Your task to perform on an android device: Open Chrome and go to settings Image 0: 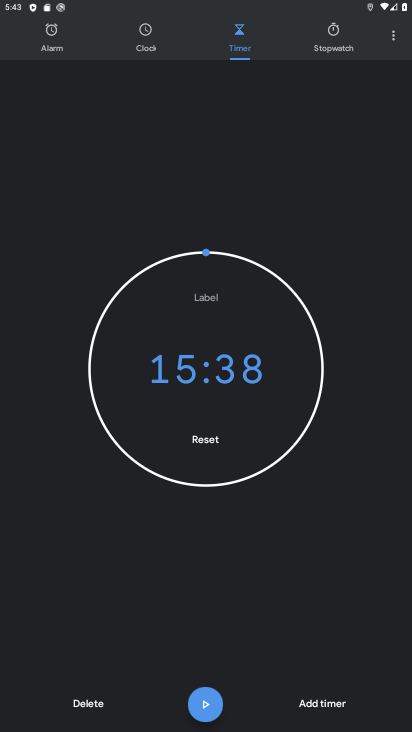
Step 0: press home button
Your task to perform on an android device: Open Chrome and go to settings Image 1: 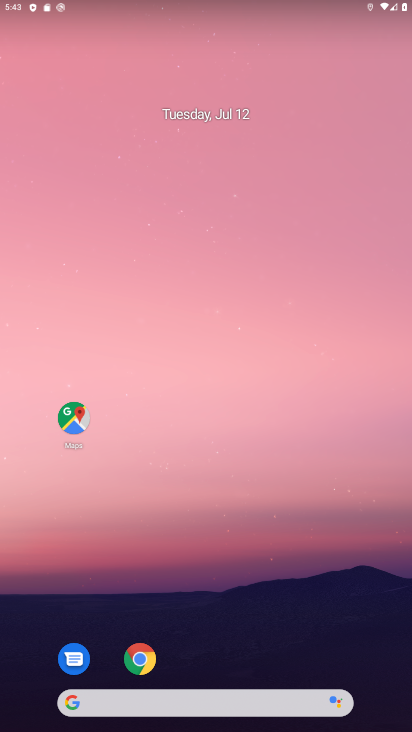
Step 1: click (135, 655)
Your task to perform on an android device: Open Chrome and go to settings Image 2: 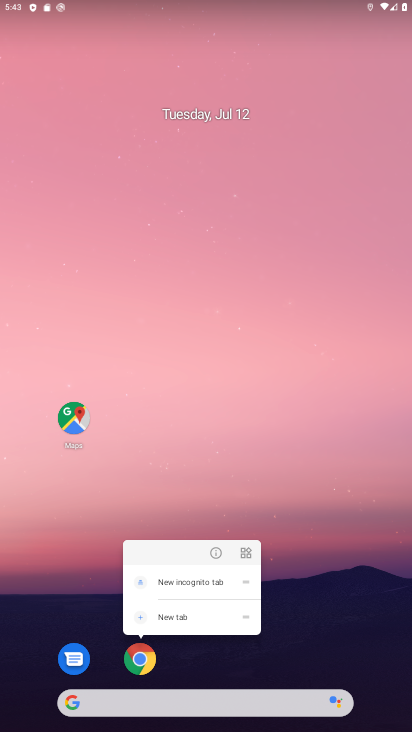
Step 2: click (147, 657)
Your task to perform on an android device: Open Chrome and go to settings Image 3: 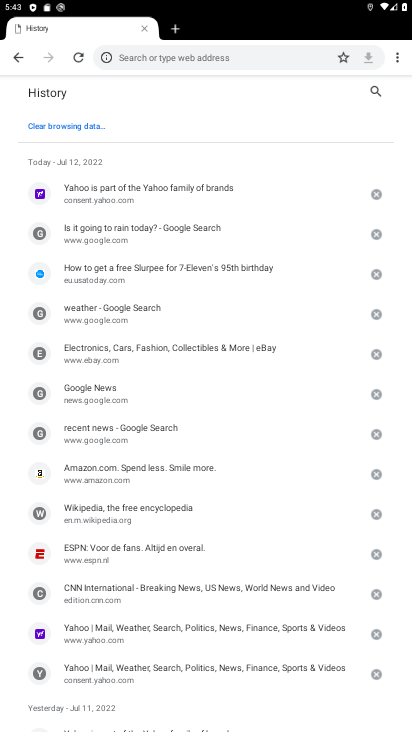
Step 3: click (400, 55)
Your task to perform on an android device: Open Chrome and go to settings Image 4: 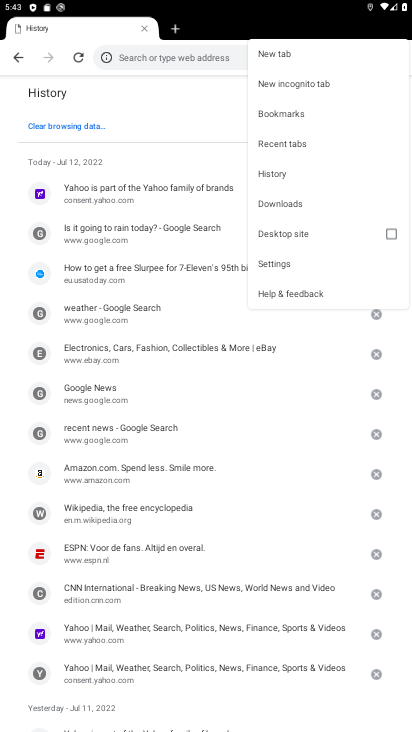
Step 4: click (270, 259)
Your task to perform on an android device: Open Chrome and go to settings Image 5: 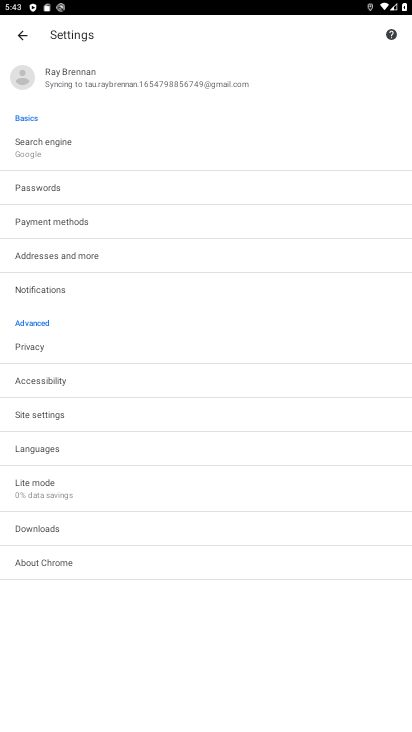
Step 5: task complete